Your task to perform on an android device: turn on the 24-hour format for clock Image 0: 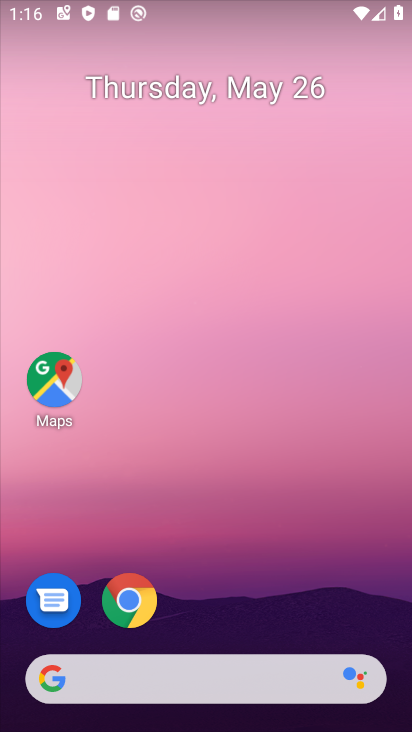
Step 0: drag from (268, 557) to (243, 353)
Your task to perform on an android device: turn on the 24-hour format for clock Image 1: 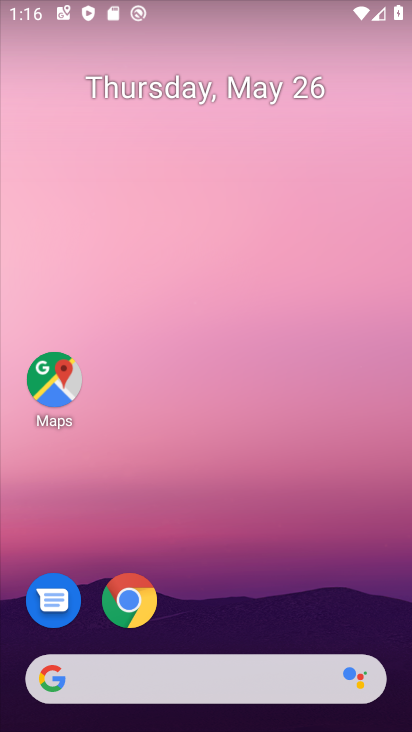
Step 1: drag from (263, 640) to (225, 134)
Your task to perform on an android device: turn on the 24-hour format for clock Image 2: 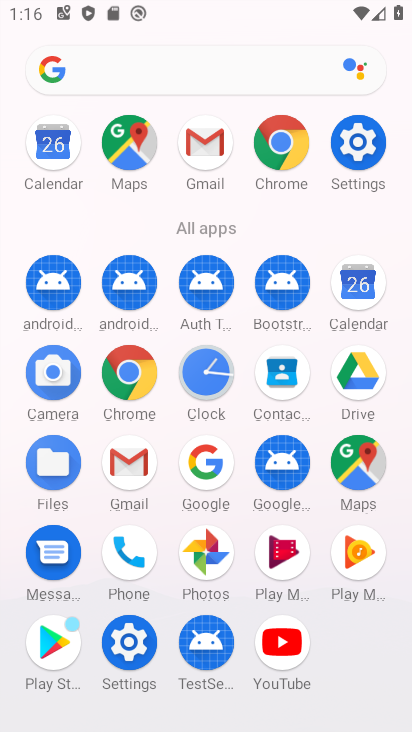
Step 2: click (211, 385)
Your task to perform on an android device: turn on the 24-hour format for clock Image 3: 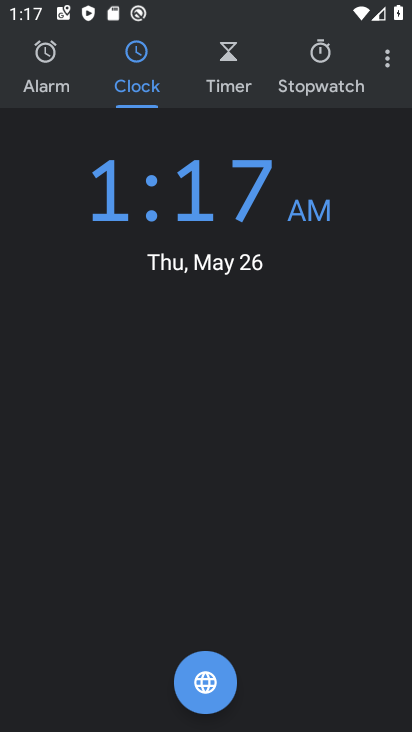
Step 3: click (378, 71)
Your task to perform on an android device: turn on the 24-hour format for clock Image 4: 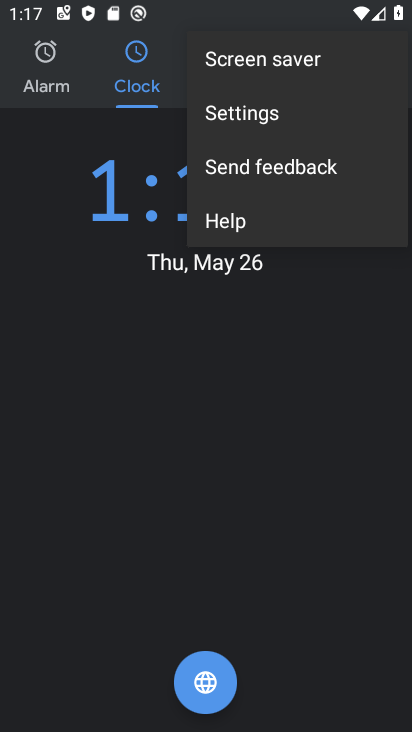
Step 4: click (291, 120)
Your task to perform on an android device: turn on the 24-hour format for clock Image 5: 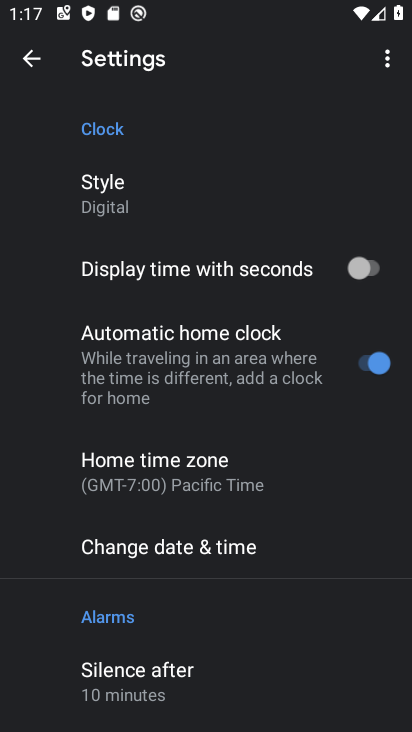
Step 5: drag from (217, 637) to (164, 193)
Your task to perform on an android device: turn on the 24-hour format for clock Image 6: 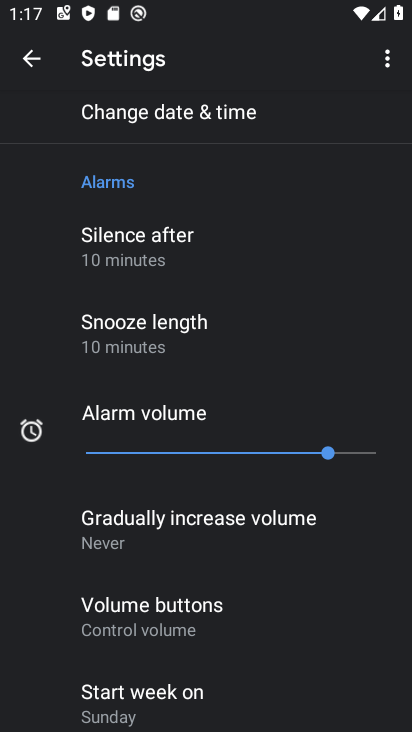
Step 6: drag from (201, 674) to (186, 342)
Your task to perform on an android device: turn on the 24-hour format for clock Image 7: 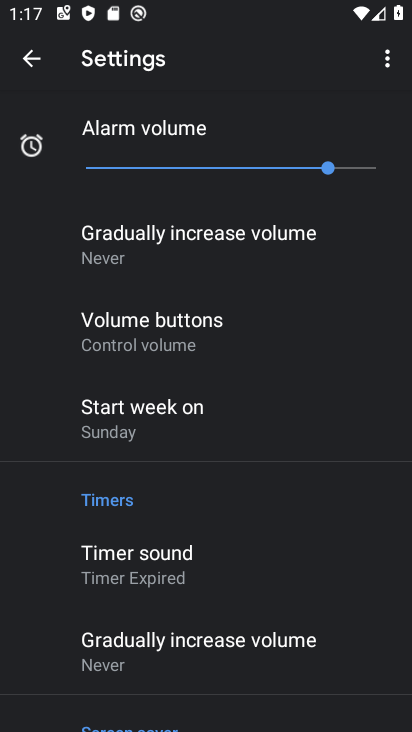
Step 7: drag from (198, 332) to (216, 564)
Your task to perform on an android device: turn on the 24-hour format for clock Image 8: 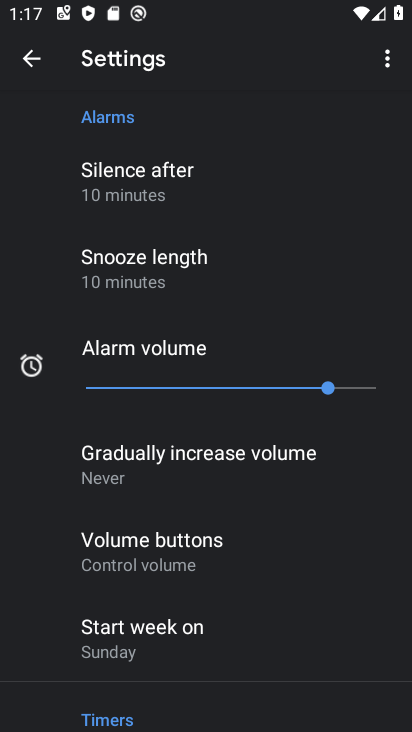
Step 8: drag from (177, 231) to (236, 580)
Your task to perform on an android device: turn on the 24-hour format for clock Image 9: 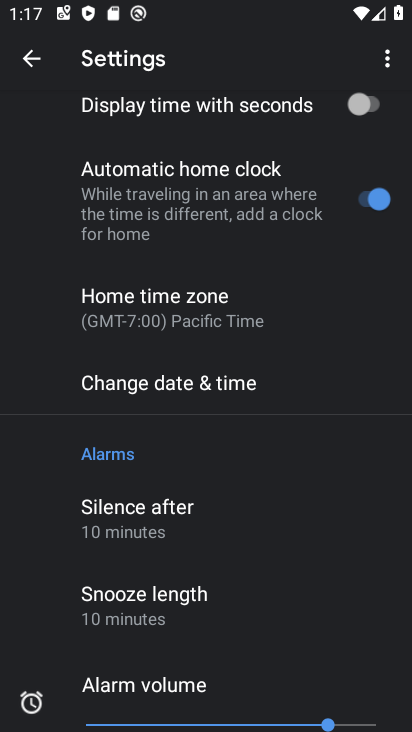
Step 9: click (192, 389)
Your task to perform on an android device: turn on the 24-hour format for clock Image 10: 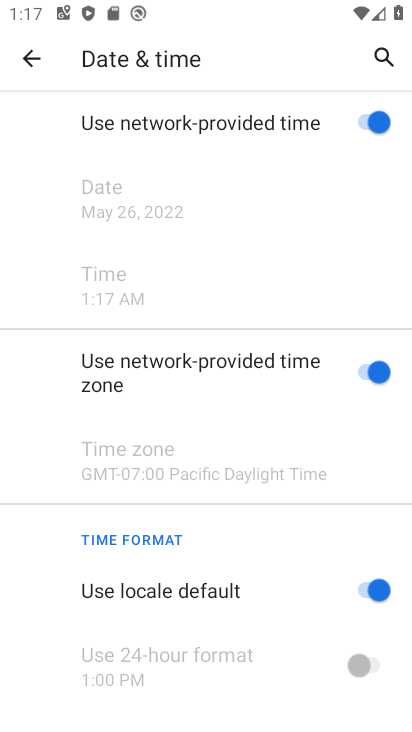
Step 10: click (390, 600)
Your task to perform on an android device: turn on the 24-hour format for clock Image 11: 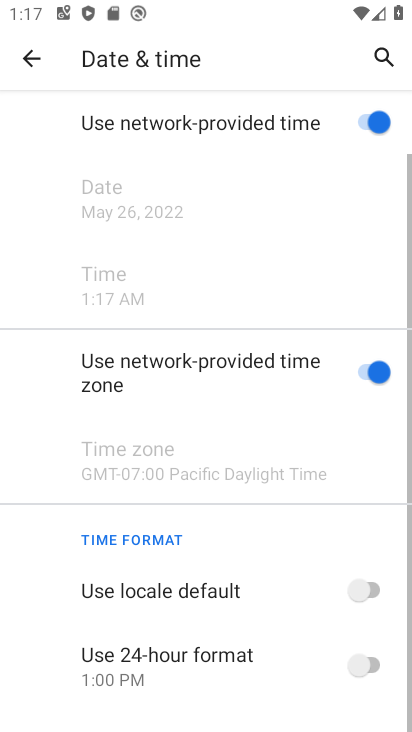
Step 11: click (365, 666)
Your task to perform on an android device: turn on the 24-hour format for clock Image 12: 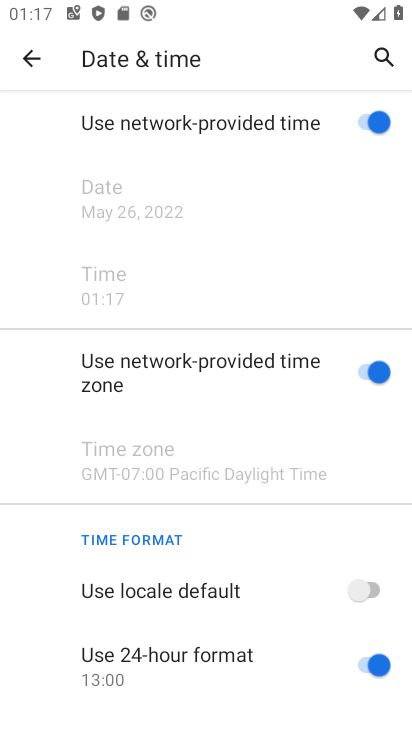
Step 12: task complete